Your task to perform on an android device: When is my next meeting? Image 0: 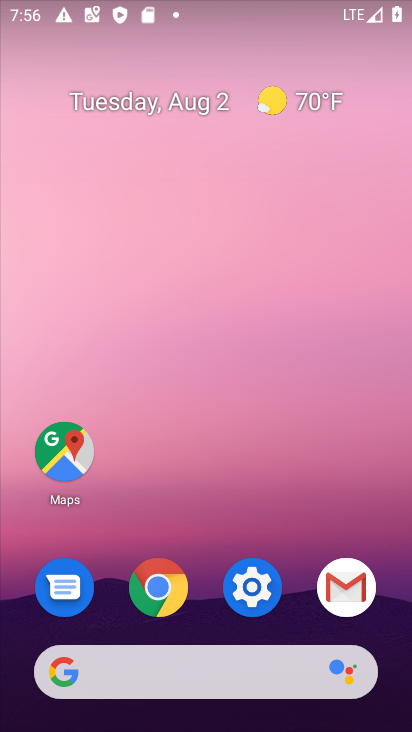
Step 0: click (263, 574)
Your task to perform on an android device: When is my next meeting? Image 1: 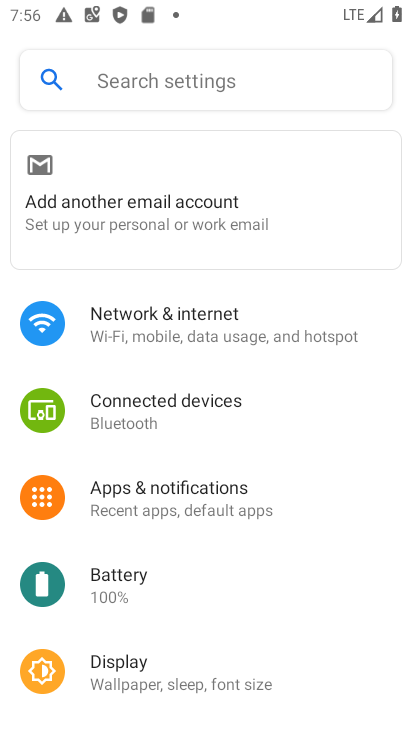
Step 1: press home button
Your task to perform on an android device: When is my next meeting? Image 2: 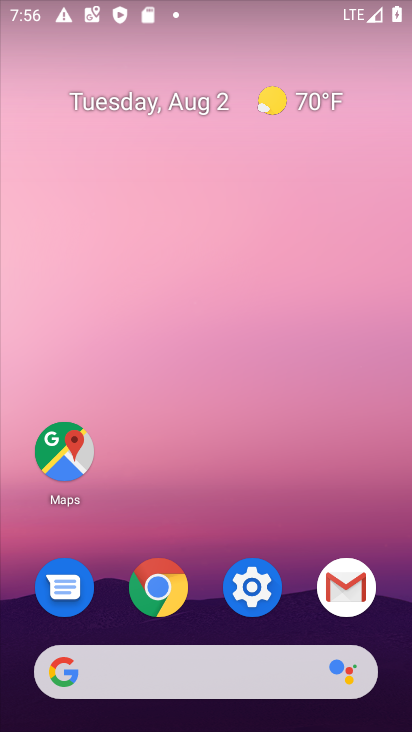
Step 2: drag from (235, 676) to (173, 191)
Your task to perform on an android device: When is my next meeting? Image 3: 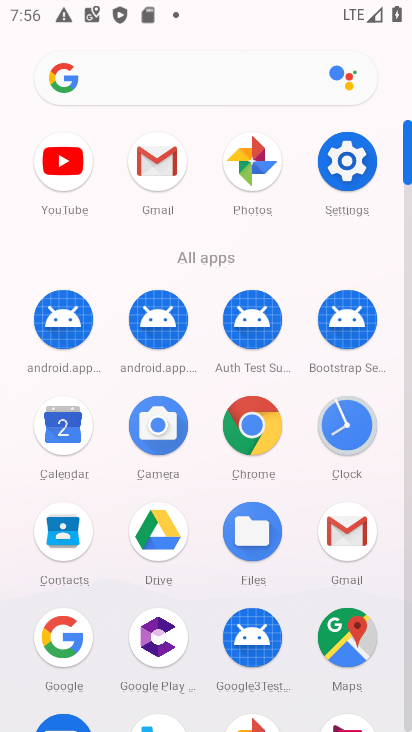
Step 3: click (55, 417)
Your task to perform on an android device: When is my next meeting? Image 4: 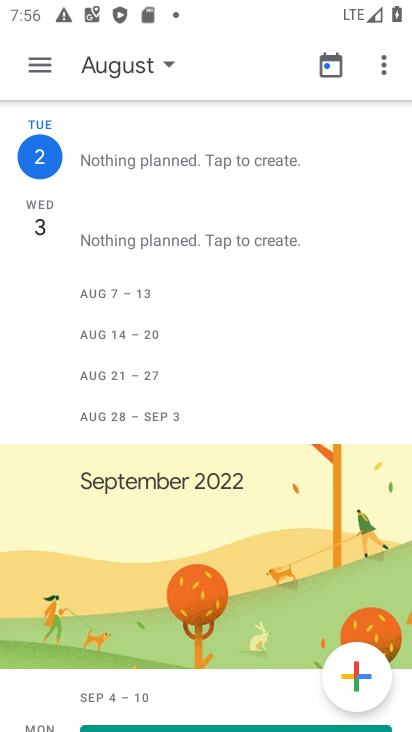
Step 4: task complete